Your task to perform on an android device: Go to network settings Image 0: 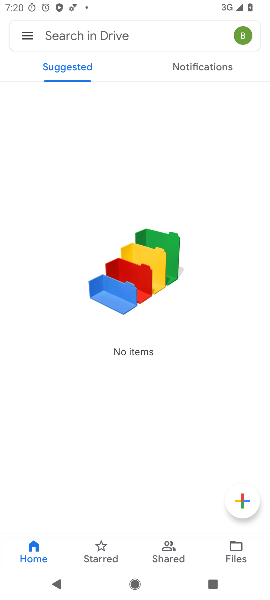
Step 0: press home button
Your task to perform on an android device: Go to network settings Image 1: 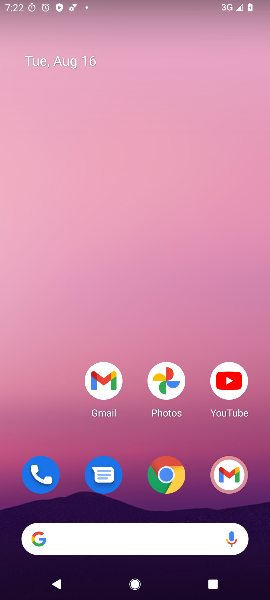
Step 1: drag from (200, 498) to (3, 241)
Your task to perform on an android device: Go to network settings Image 2: 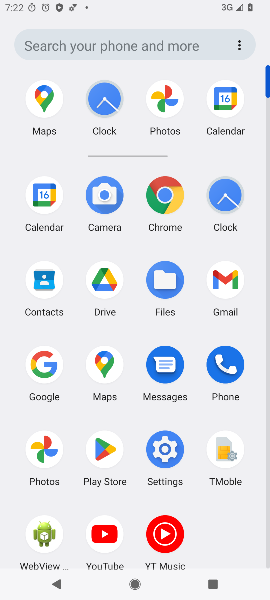
Step 2: click (167, 457)
Your task to perform on an android device: Go to network settings Image 3: 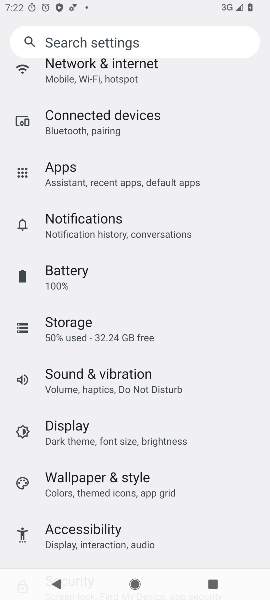
Step 3: click (117, 79)
Your task to perform on an android device: Go to network settings Image 4: 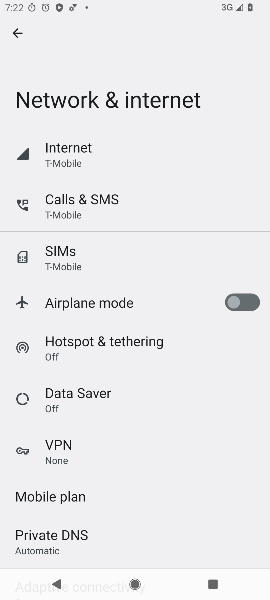
Step 4: task complete